Your task to perform on an android device: Clear all items from cart on walmart. Image 0: 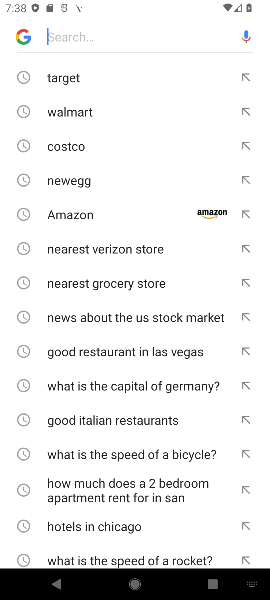
Step 0: type "walmart"
Your task to perform on an android device: Clear all items from cart on walmart. Image 1: 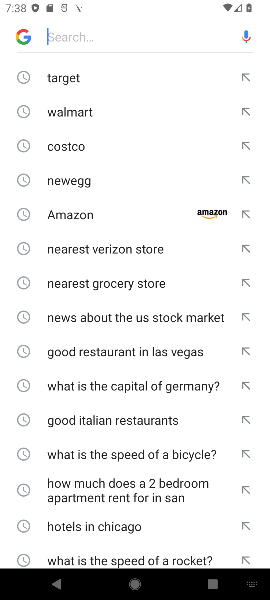
Step 1: click (76, 115)
Your task to perform on an android device: Clear all items from cart on walmart. Image 2: 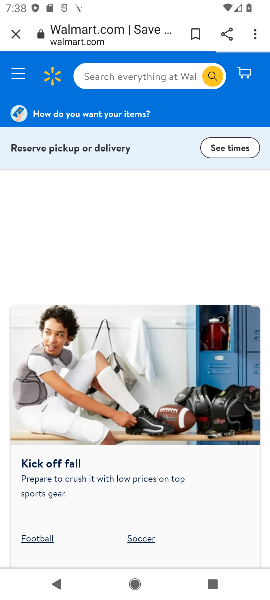
Step 2: click (248, 73)
Your task to perform on an android device: Clear all items from cart on walmart. Image 3: 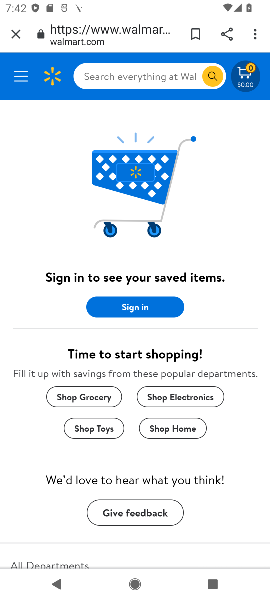
Step 3: task complete